Your task to perform on an android device: turn off wifi Image 0: 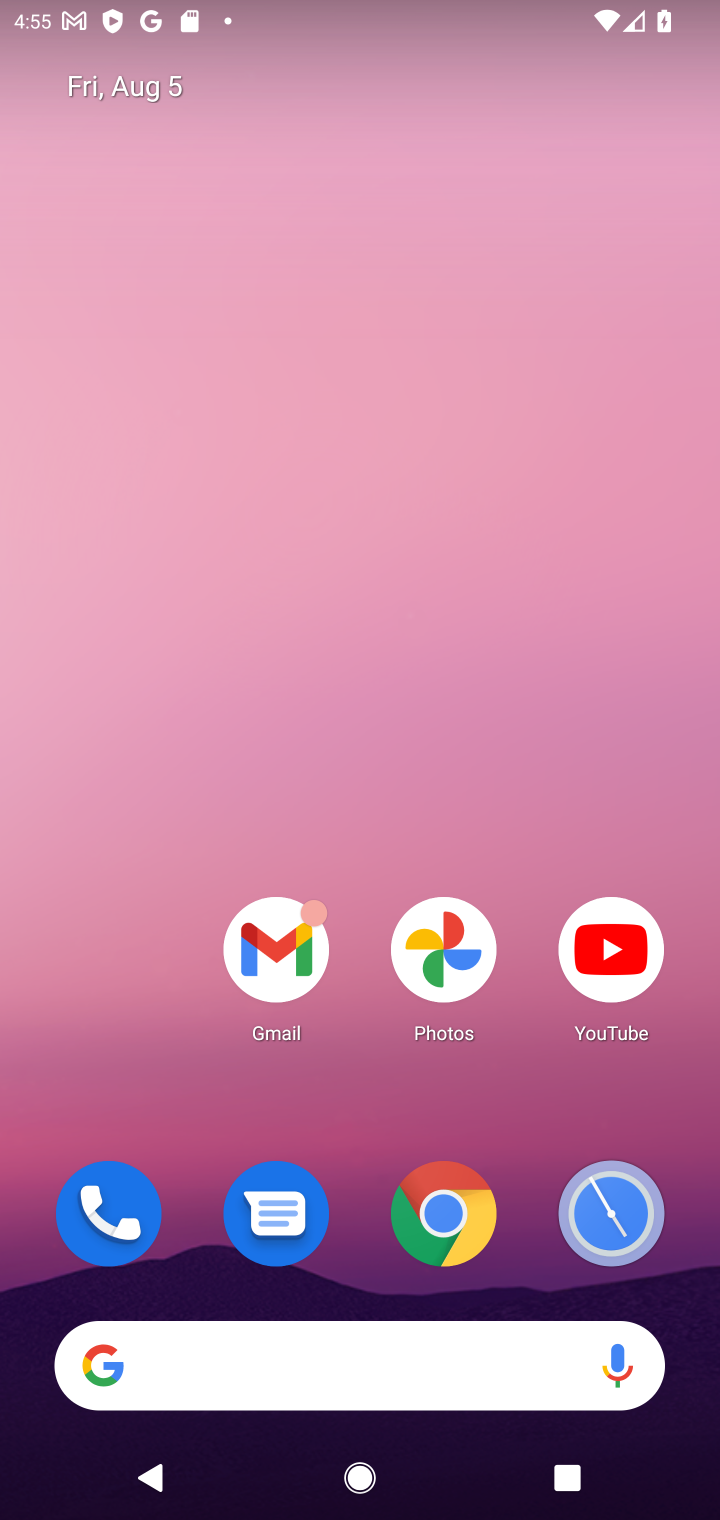
Step 0: drag from (351, 1300) to (118, 119)
Your task to perform on an android device: turn off wifi Image 1: 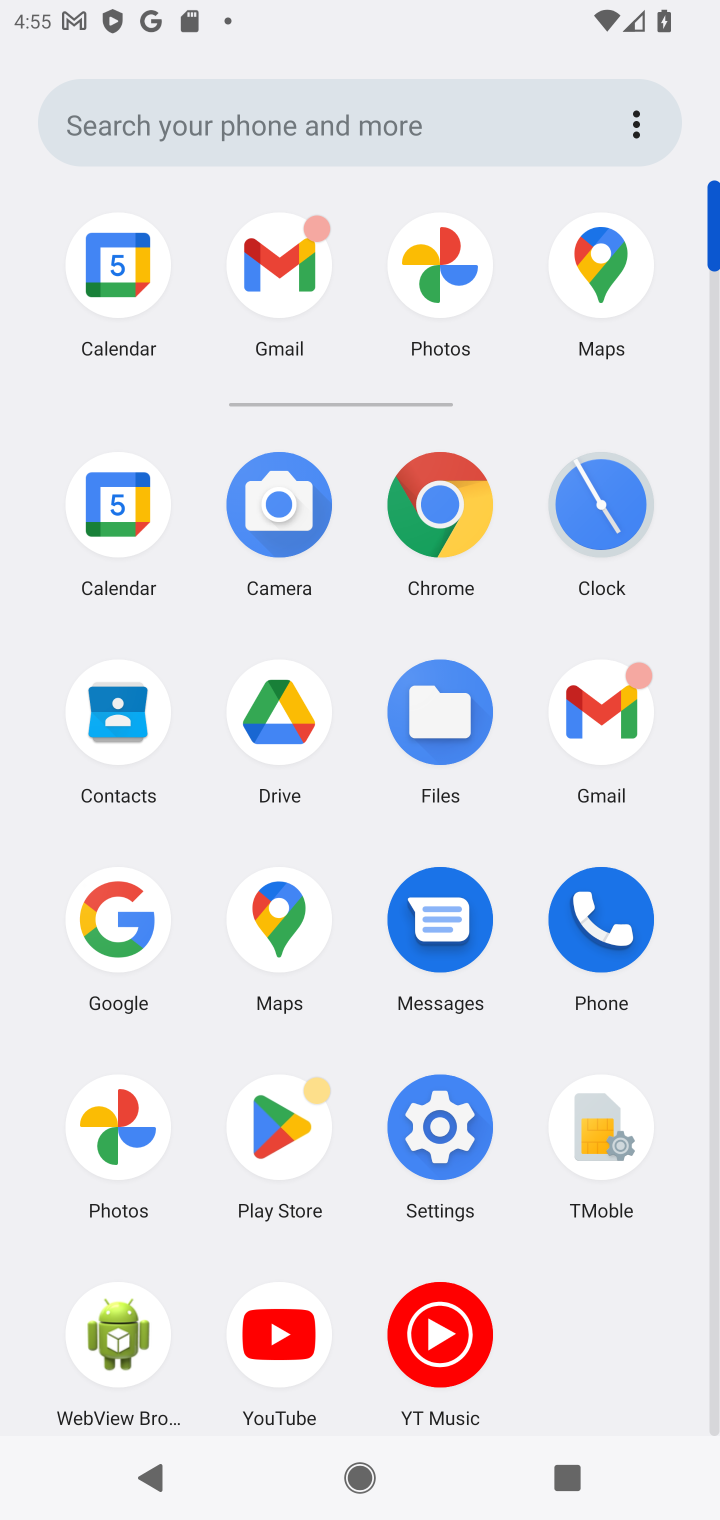
Step 1: click (463, 1163)
Your task to perform on an android device: turn off wifi Image 2: 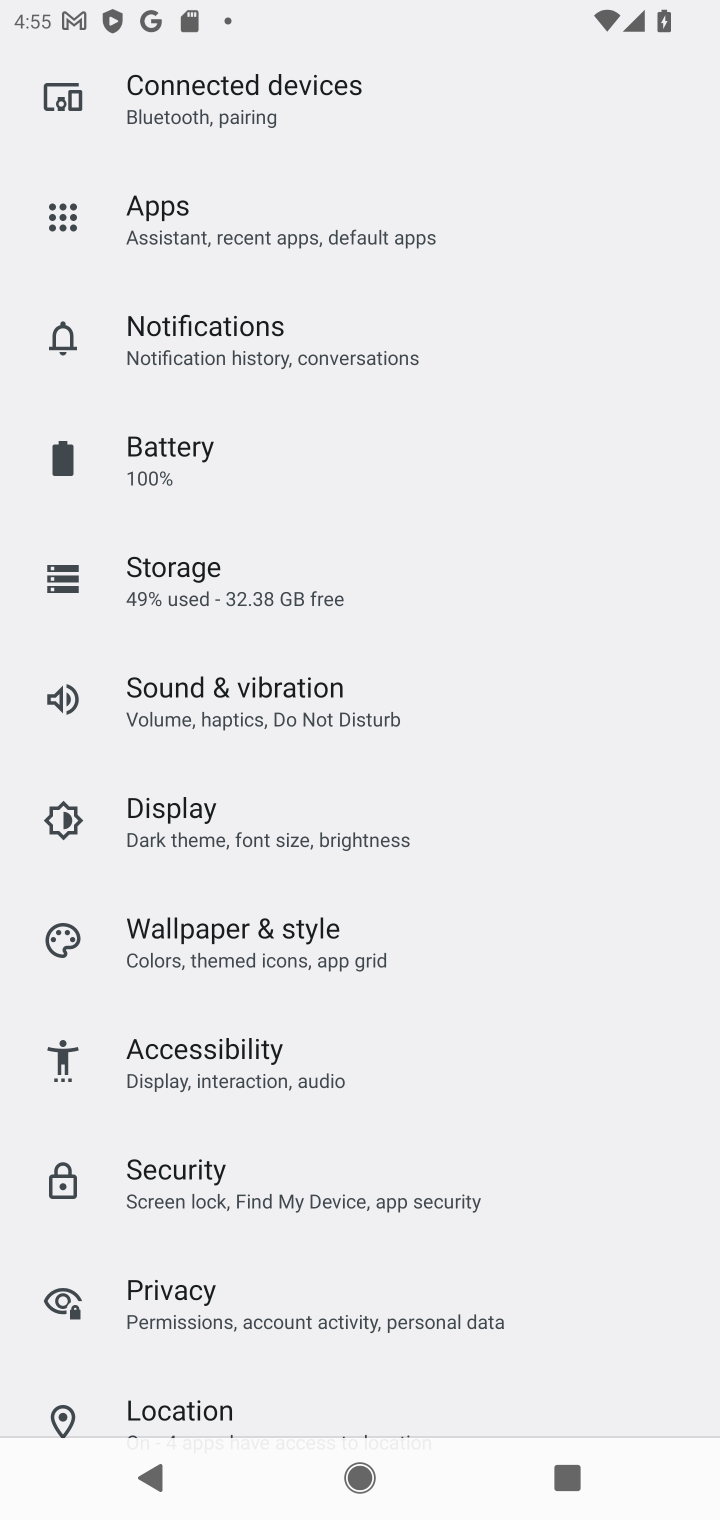
Step 2: drag from (217, 215) to (253, 716)
Your task to perform on an android device: turn off wifi Image 3: 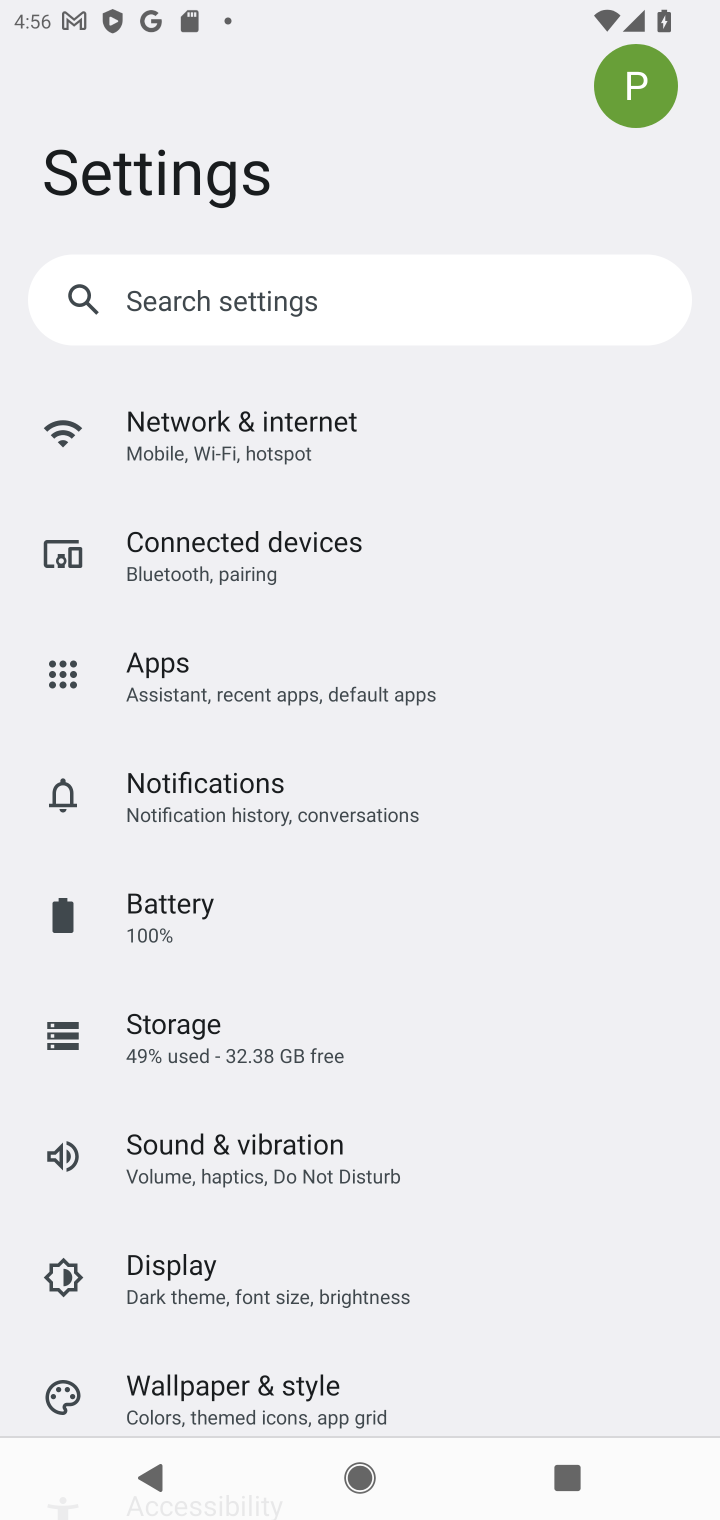
Step 3: click (293, 405)
Your task to perform on an android device: turn off wifi Image 4: 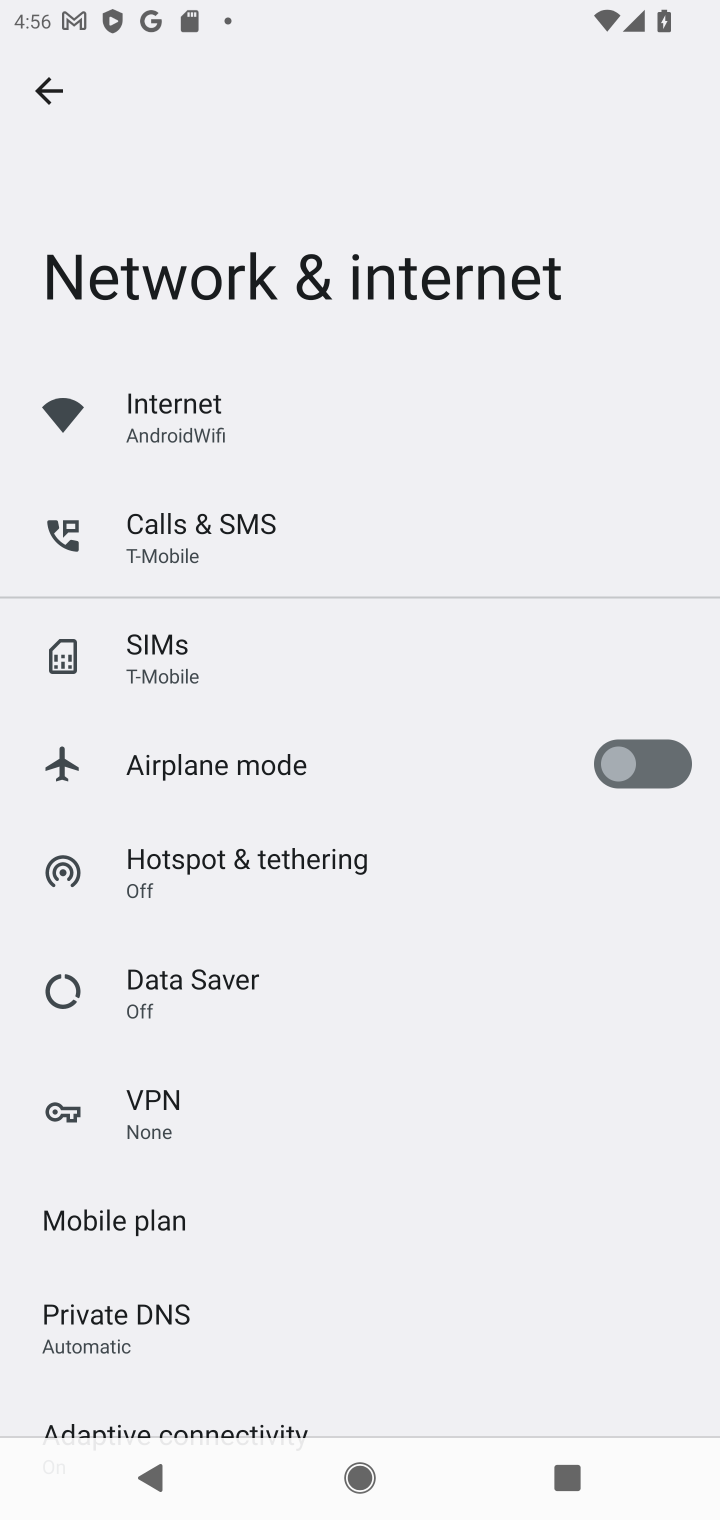
Step 4: task complete